Your task to perform on an android device: turn off notifications in google photos Image 0: 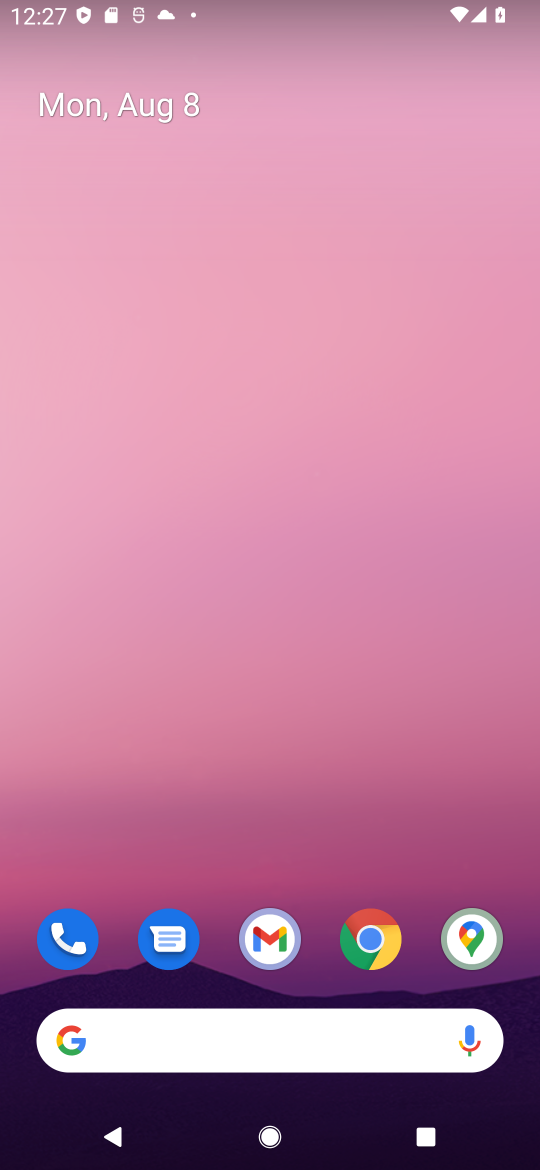
Step 0: drag from (227, 1027) to (332, 192)
Your task to perform on an android device: turn off notifications in google photos Image 1: 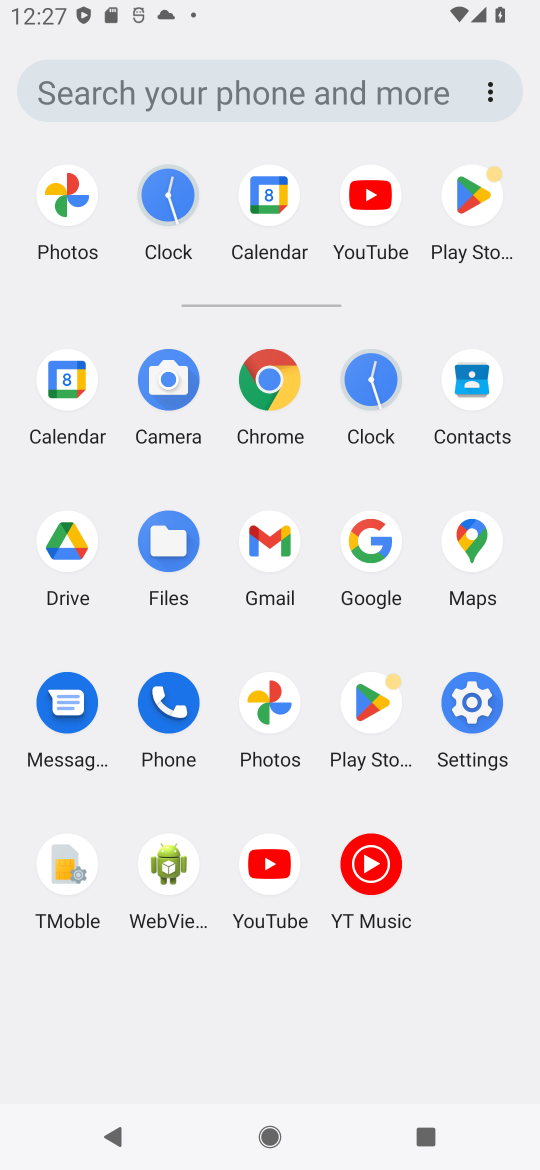
Step 1: click (274, 701)
Your task to perform on an android device: turn off notifications in google photos Image 2: 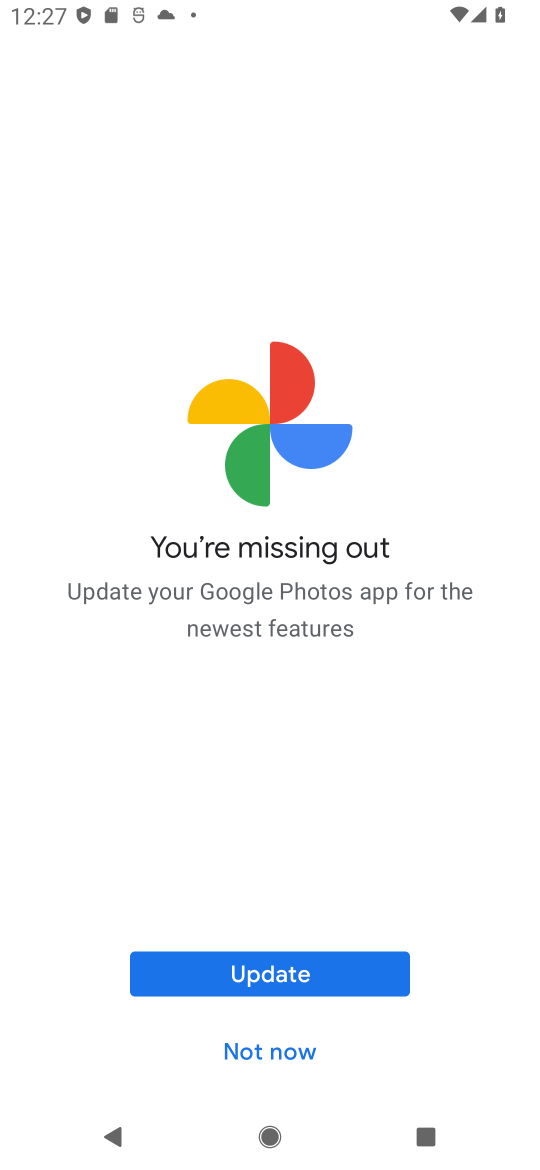
Step 2: click (280, 987)
Your task to perform on an android device: turn off notifications in google photos Image 3: 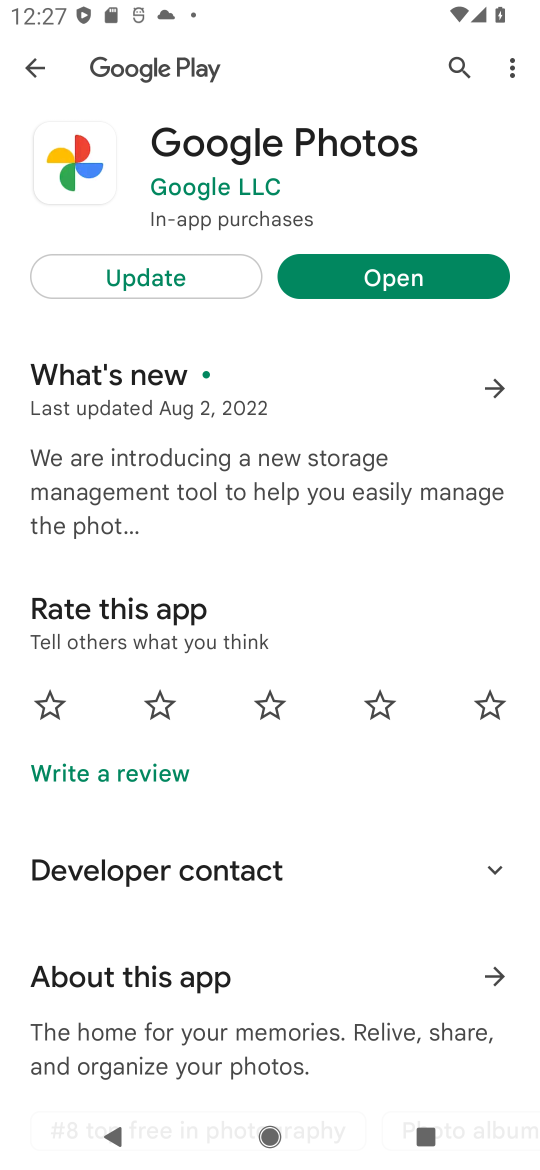
Step 3: click (221, 269)
Your task to perform on an android device: turn off notifications in google photos Image 4: 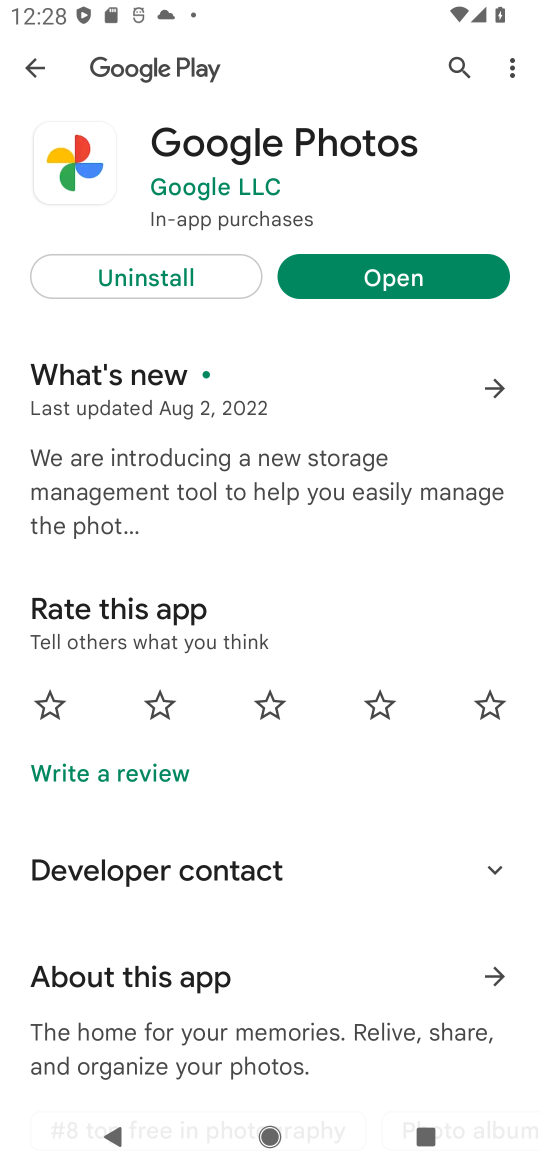
Step 4: click (393, 278)
Your task to perform on an android device: turn off notifications in google photos Image 5: 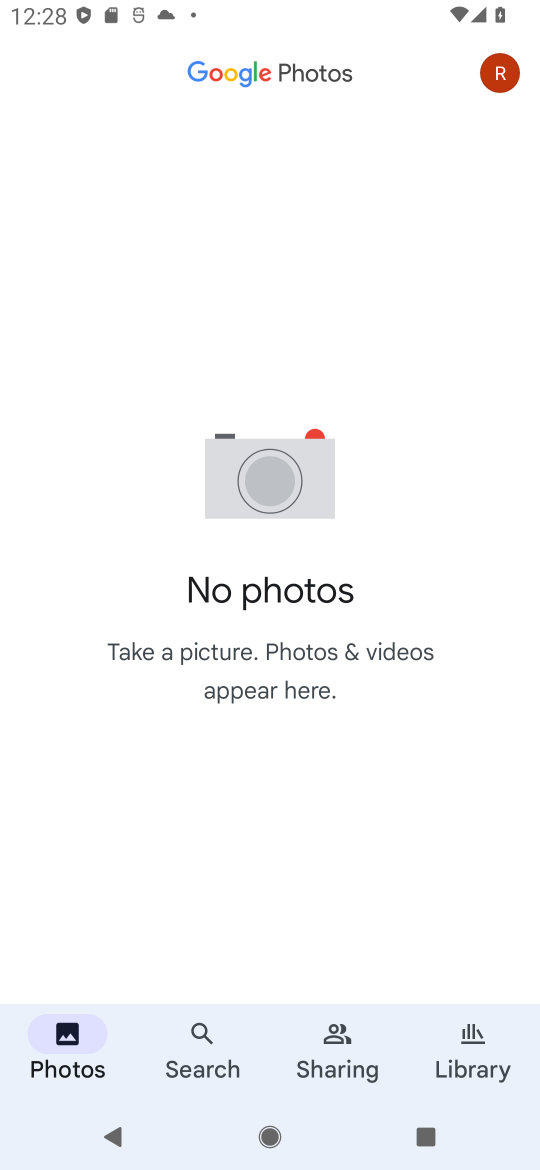
Step 5: click (501, 83)
Your task to perform on an android device: turn off notifications in google photos Image 6: 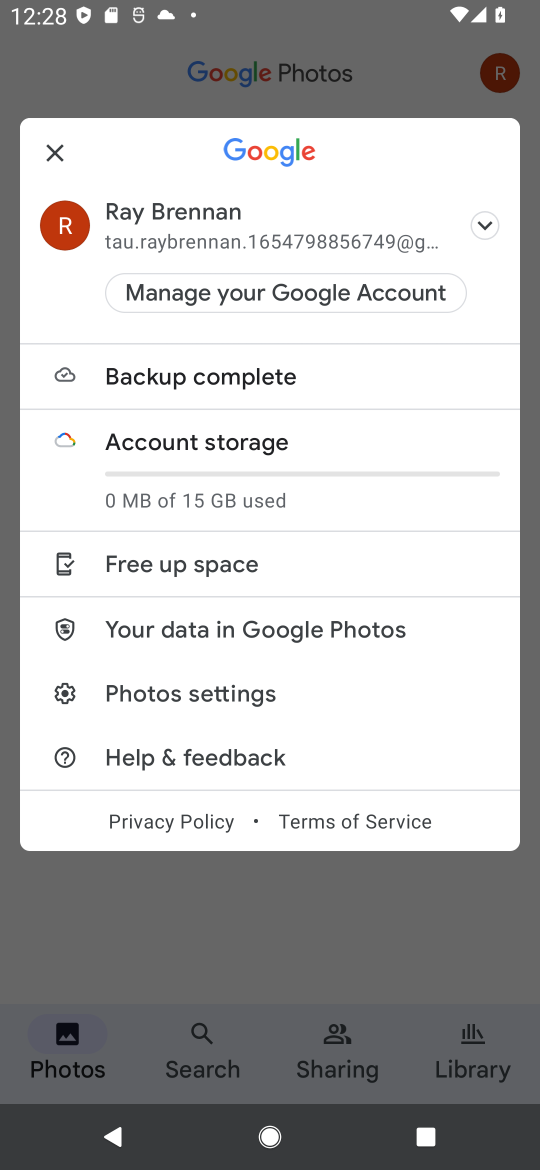
Step 6: click (247, 687)
Your task to perform on an android device: turn off notifications in google photos Image 7: 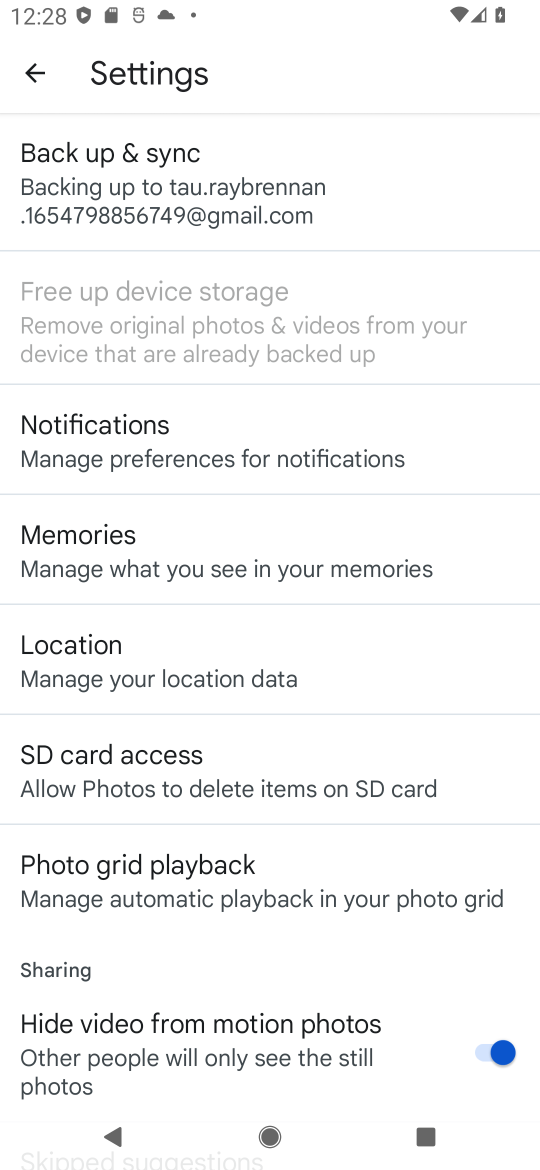
Step 7: click (201, 450)
Your task to perform on an android device: turn off notifications in google photos Image 8: 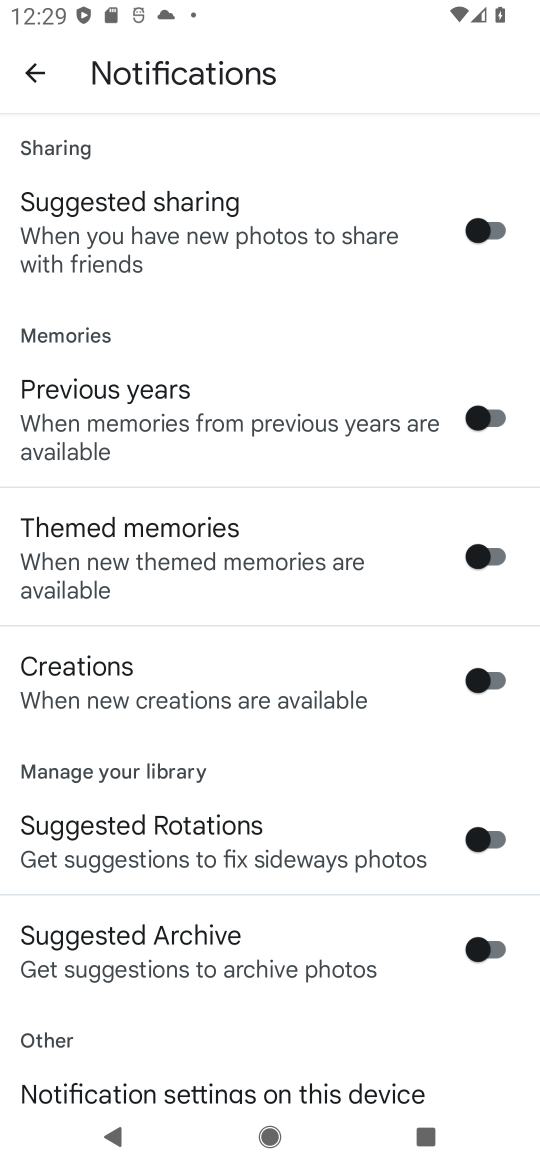
Step 8: drag from (197, 909) to (296, 713)
Your task to perform on an android device: turn off notifications in google photos Image 9: 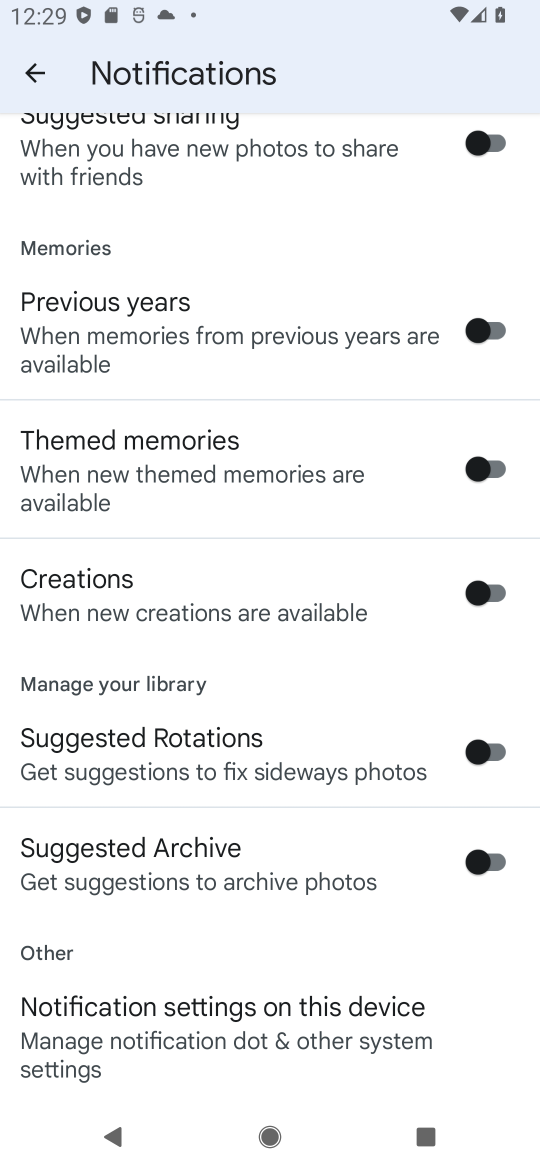
Step 9: click (217, 1004)
Your task to perform on an android device: turn off notifications in google photos Image 10: 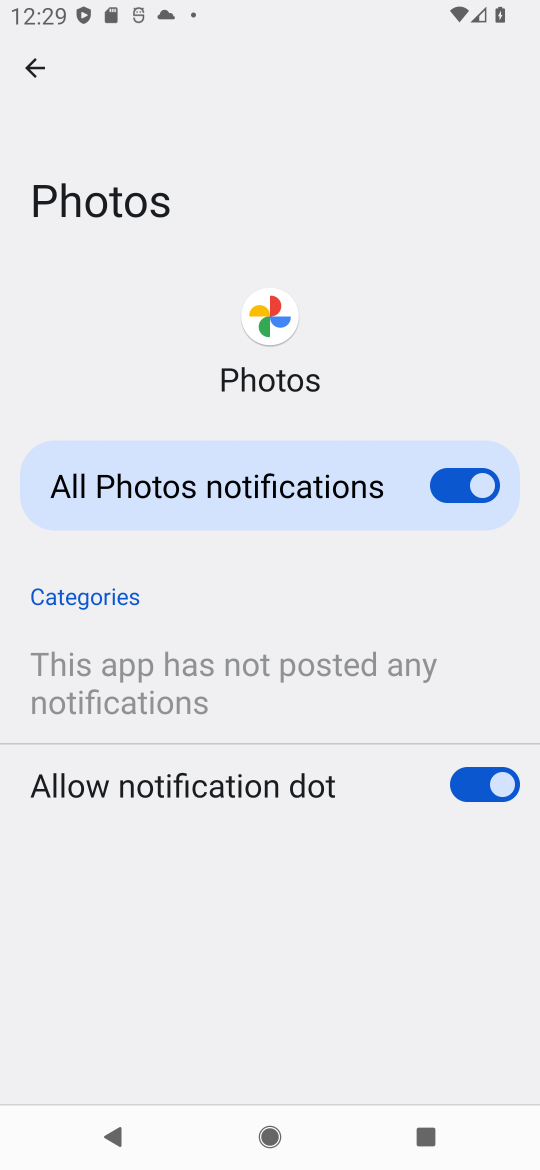
Step 10: click (453, 477)
Your task to perform on an android device: turn off notifications in google photos Image 11: 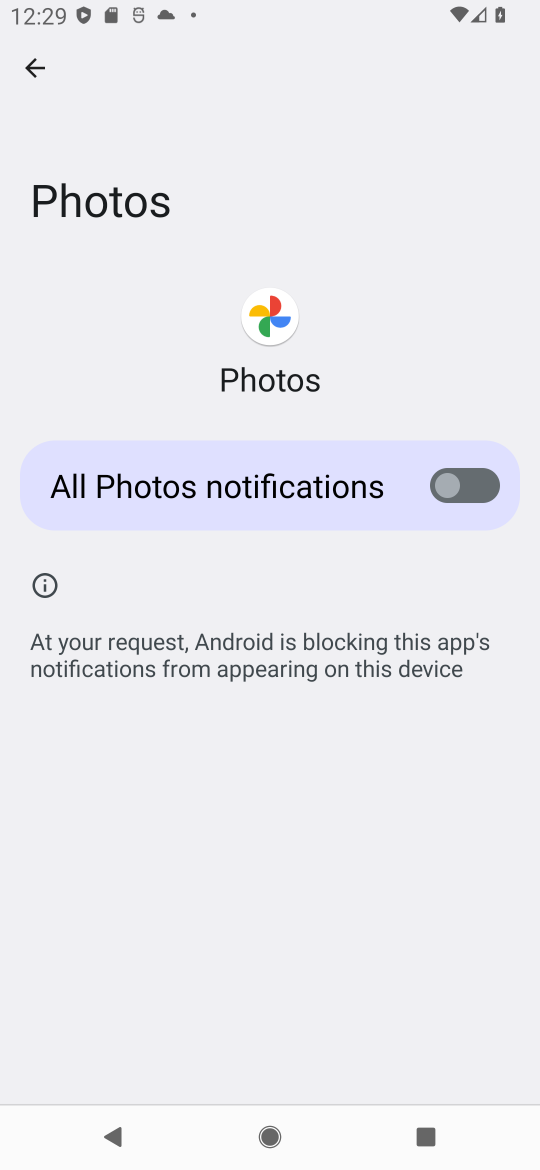
Step 11: task complete